Your task to perform on an android device: Open Youtube and go to "Your channel" Image 0: 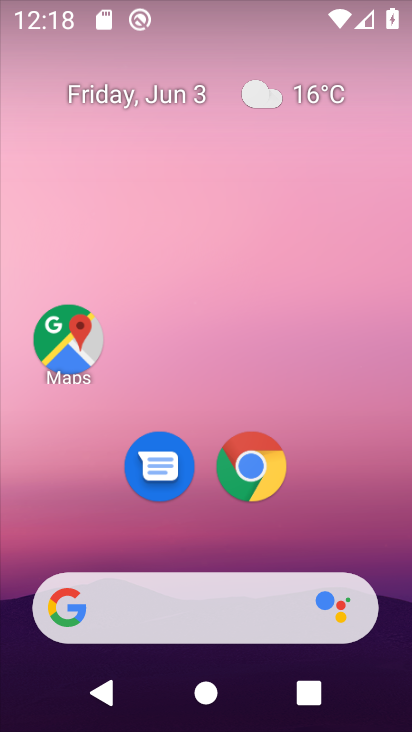
Step 0: drag from (69, 576) to (220, 2)
Your task to perform on an android device: Open Youtube and go to "Your channel" Image 1: 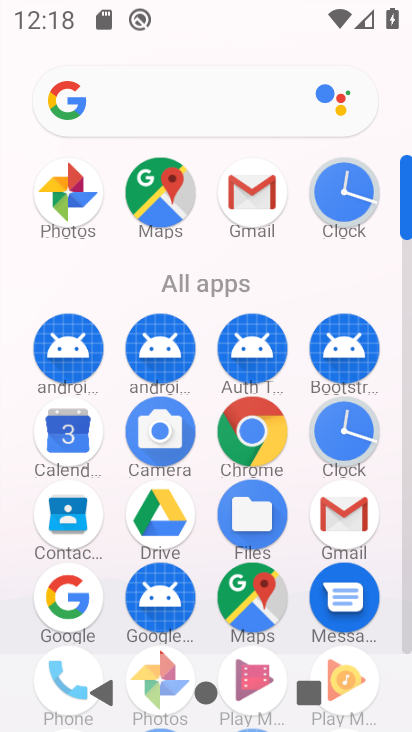
Step 1: drag from (141, 527) to (225, 354)
Your task to perform on an android device: Open Youtube and go to "Your channel" Image 2: 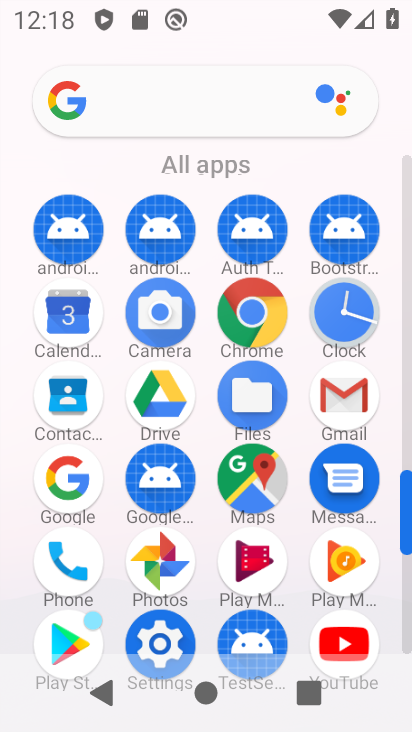
Step 2: click (345, 637)
Your task to perform on an android device: Open Youtube and go to "Your channel" Image 3: 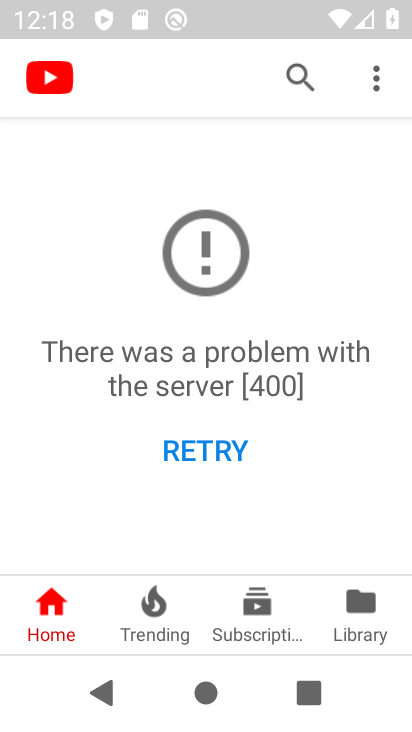
Step 3: task complete